Your task to perform on an android device: Open the Play Movies app and select the watchlist tab. Image 0: 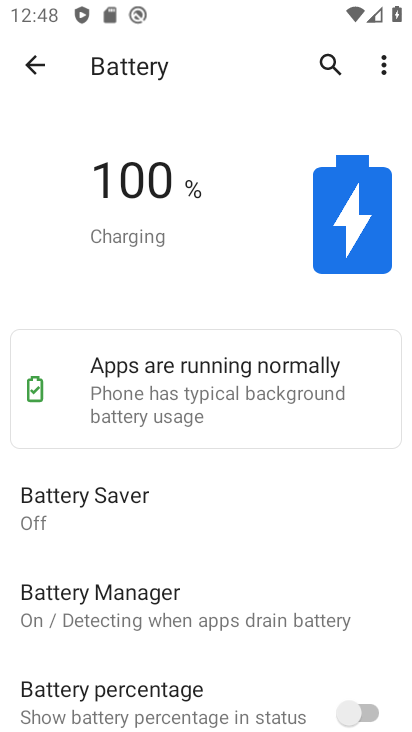
Step 0: press home button
Your task to perform on an android device: Open the Play Movies app and select the watchlist tab. Image 1: 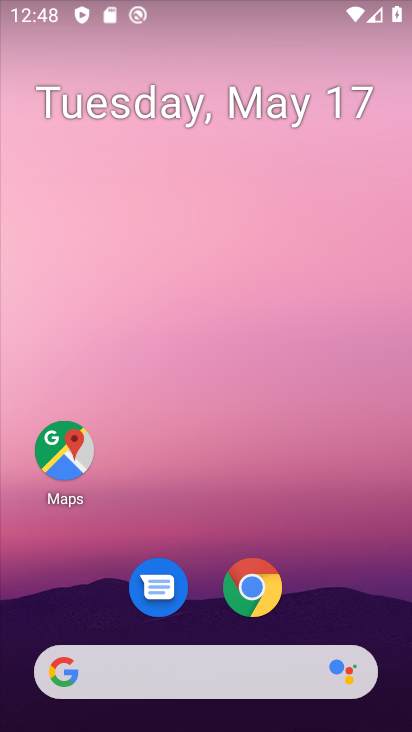
Step 1: drag from (372, 615) to (352, 27)
Your task to perform on an android device: Open the Play Movies app and select the watchlist tab. Image 2: 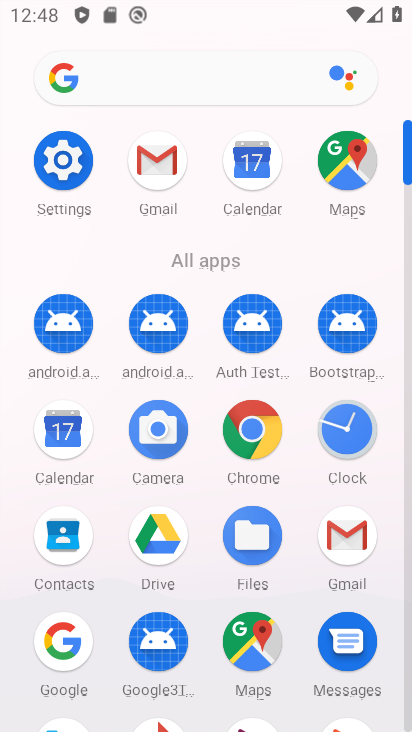
Step 2: click (406, 655)
Your task to perform on an android device: Open the Play Movies app and select the watchlist tab. Image 3: 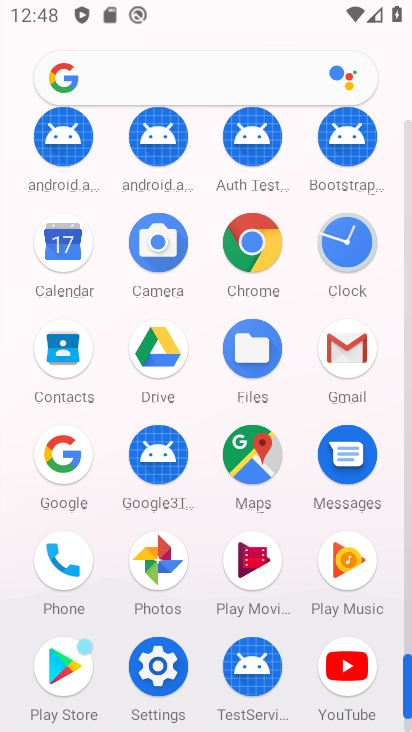
Step 3: click (332, 675)
Your task to perform on an android device: Open the Play Movies app and select the watchlist tab. Image 4: 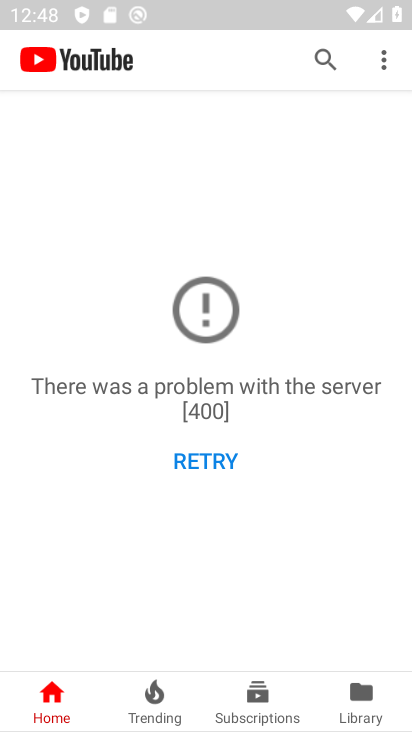
Step 4: press home button
Your task to perform on an android device: Open the Play Movies app and select the watchlist tab. Image 5: 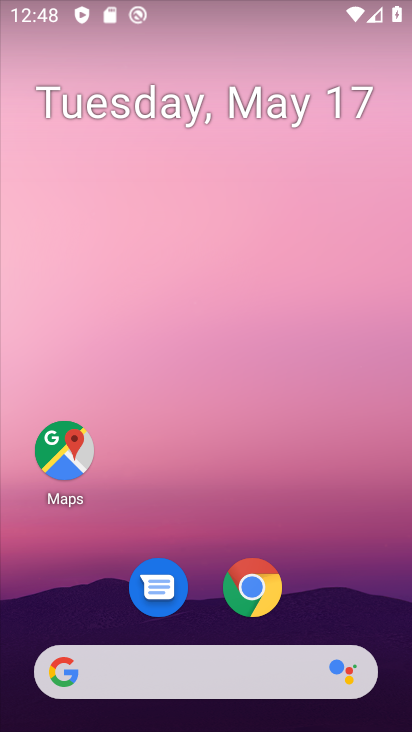
Step 5: drag from (321, 579) to (329, 84)
Your task to perform on an android device: Open the Play Movies app and select the watchlist tab. Image 6: 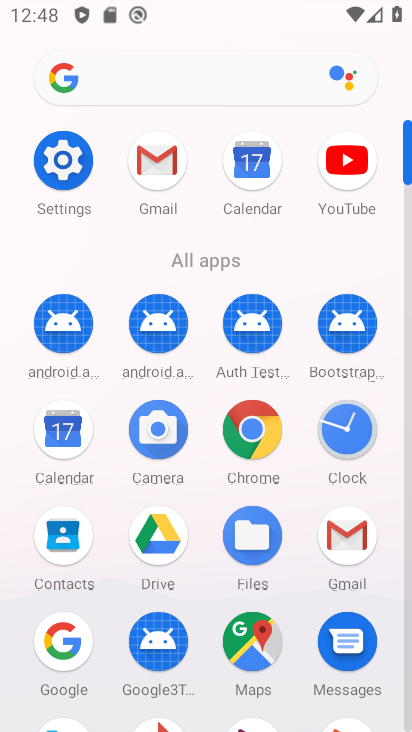
Step 6: click (408, 728)
Your task to perform on an android device: Open the Play Movies app and select the watchlist tab. Image 7: 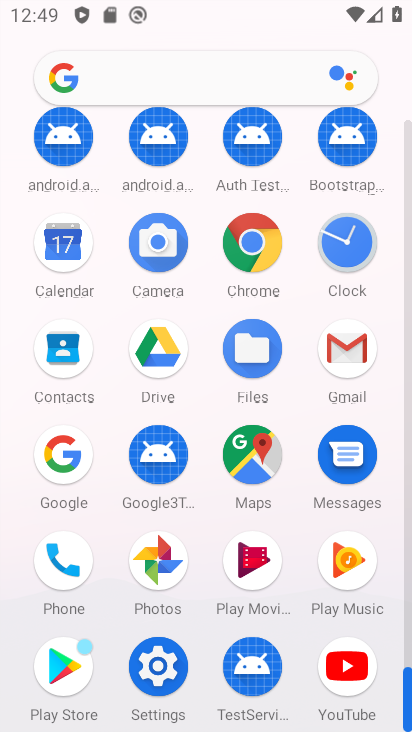
Step 7: click (240, 584)
Your task to perform on an android device: Open the Play Movies app and select the watchlist tab. Image 8: 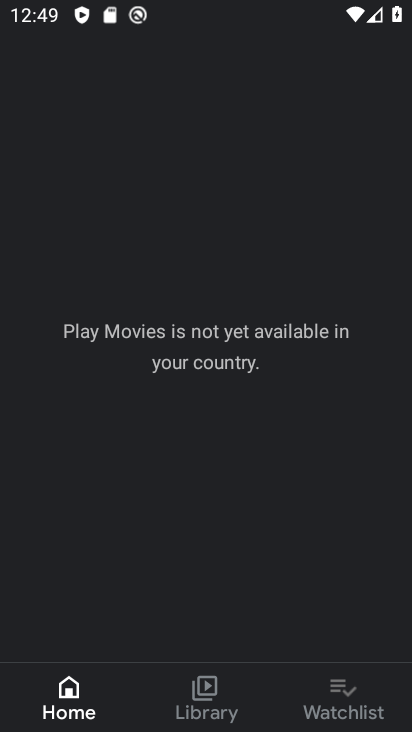
Step 8: click (363, 712)
Your task to perform on an android device: Open the Play Movies app and select the watchlist tab. Image 9: 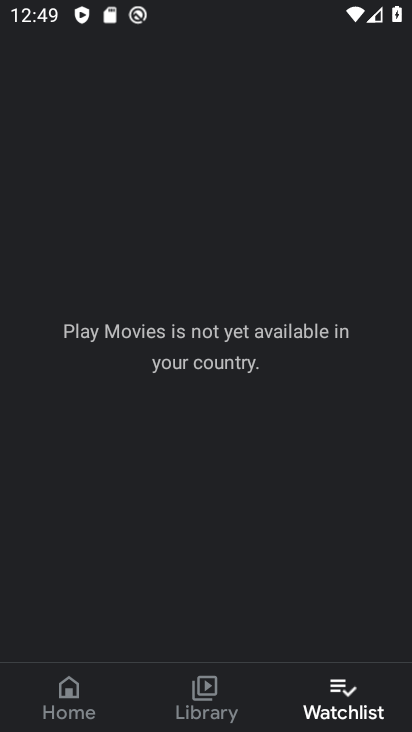
Step 9: task complete